Your task to perform on an android device: Go to wifi settings Image 0: 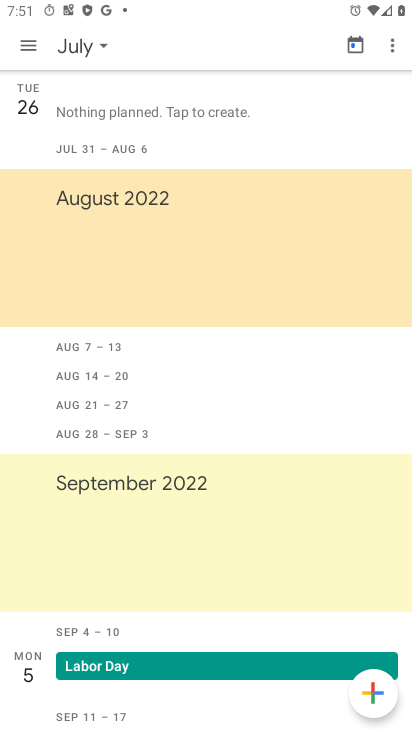
Step 0: press home button
Your task to perform on an android device: Go to wifi settings Image 1: 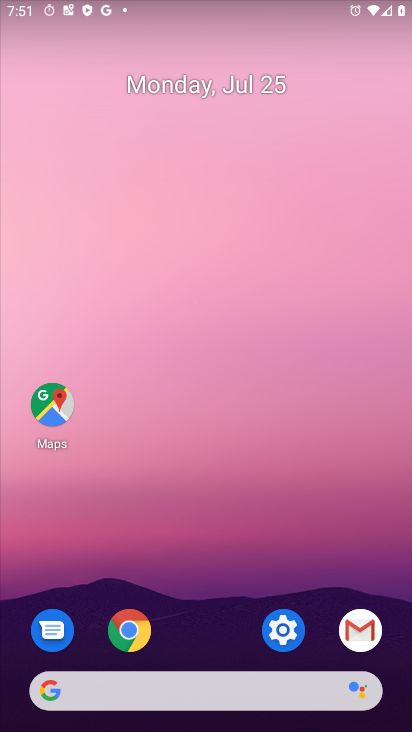
Step 1: click (278, 613)
Your task to perform on an android device: Go to wifi settings Image 2: 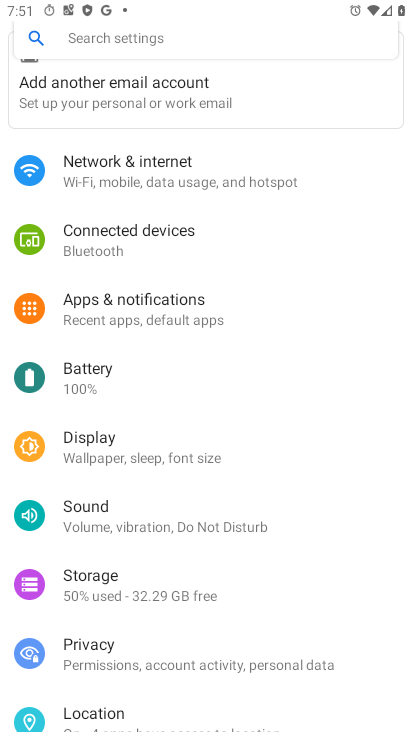
Step 2: click (139, 169)
Your task to perform on an android device: Go to wifi settings Image 3: 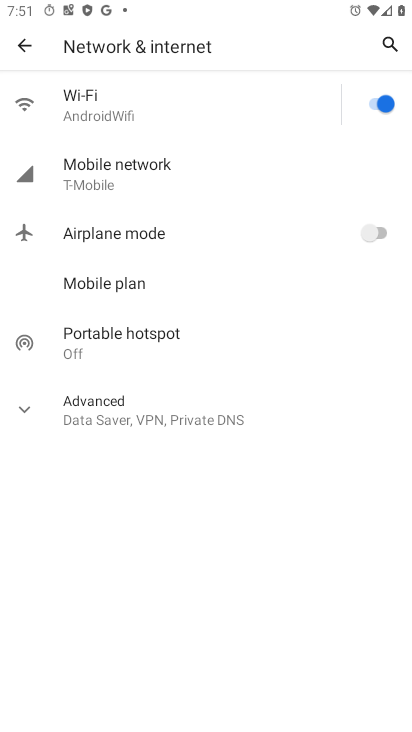
Step 3: click (109, 104)
Your task to perform on an android device: Go to wifi settings Image 4: 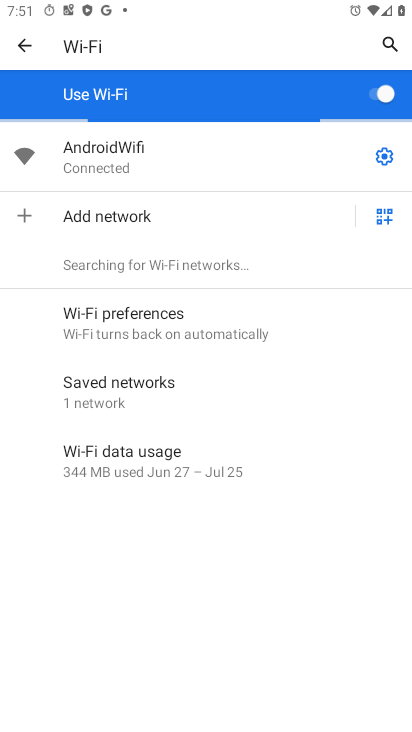
Step 4: task complete